Your task to perform on an android device: Open Google Maps Image 0: 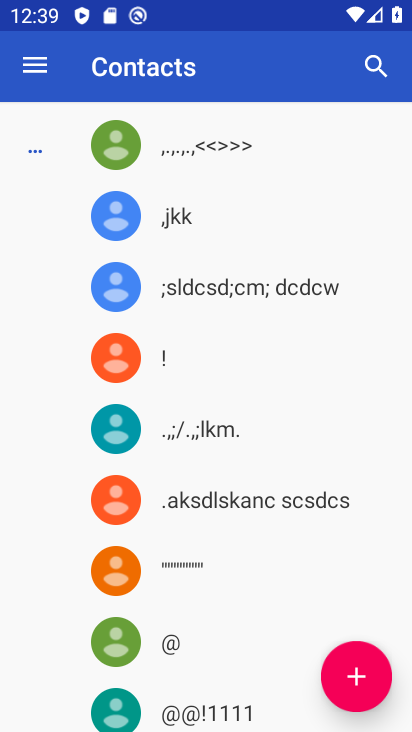
Step 0: press home button
Your task to perform on an android device: Open Google Maps Image 1: 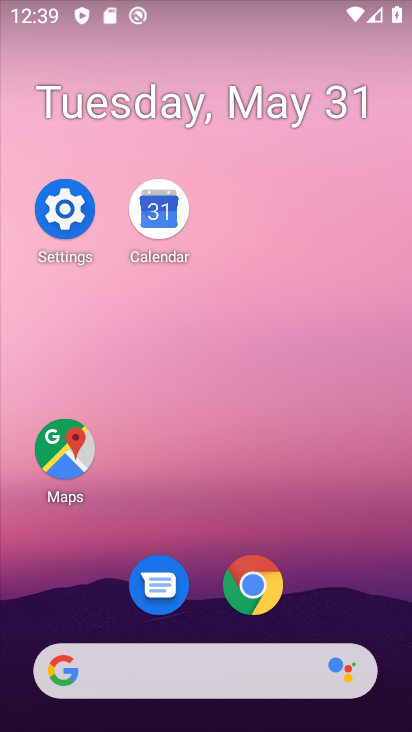
Step 1: click (78, 470)
Your task to perform on an android device: Open Google Maps Image 2: 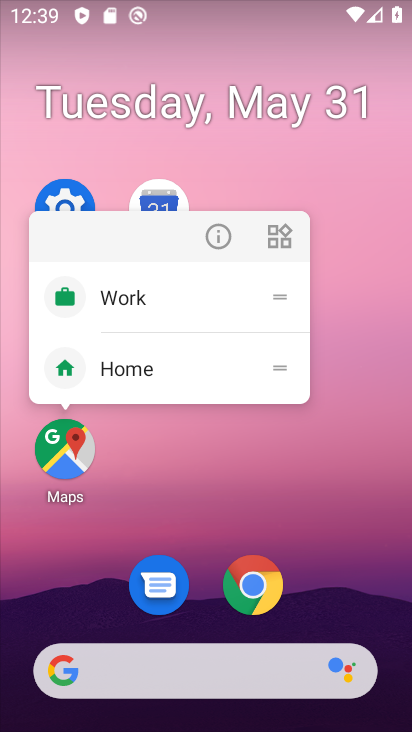
Step 2: click (84, 450)
Your task to perform on an android device: Open Google Maps Image 3: 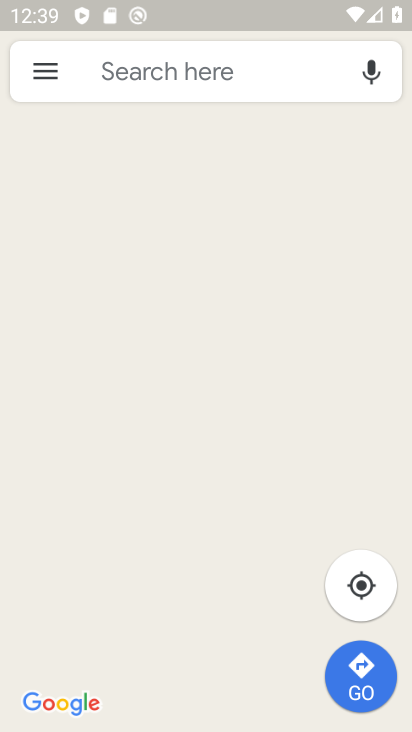
Step 3: task complete